Your task to perform on an android device: turn notification dots on Image 0: 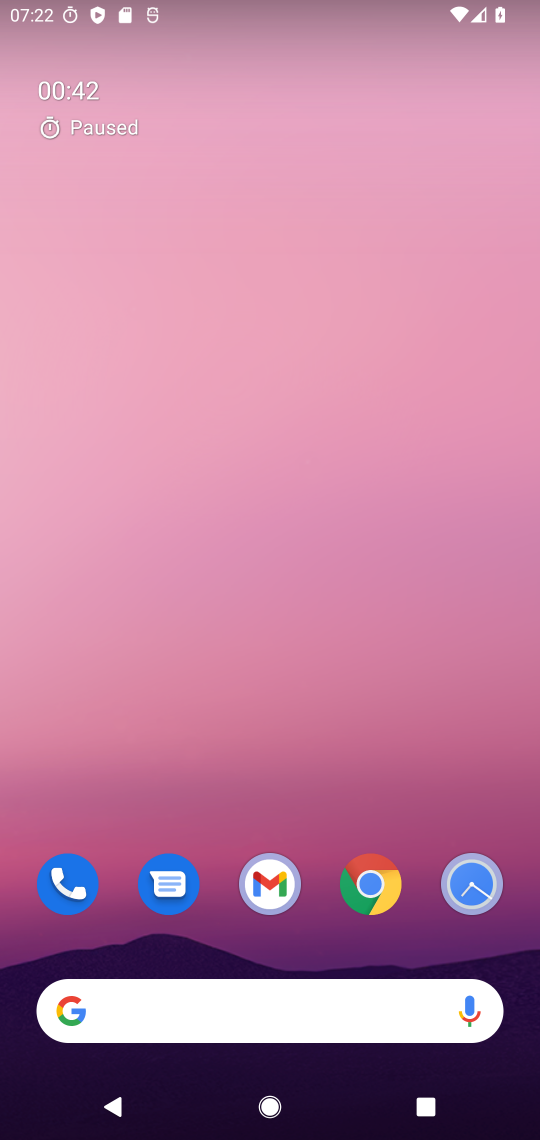
Step 0: press home button
Your task to perform on an android device: turn notification dots on Image 1: 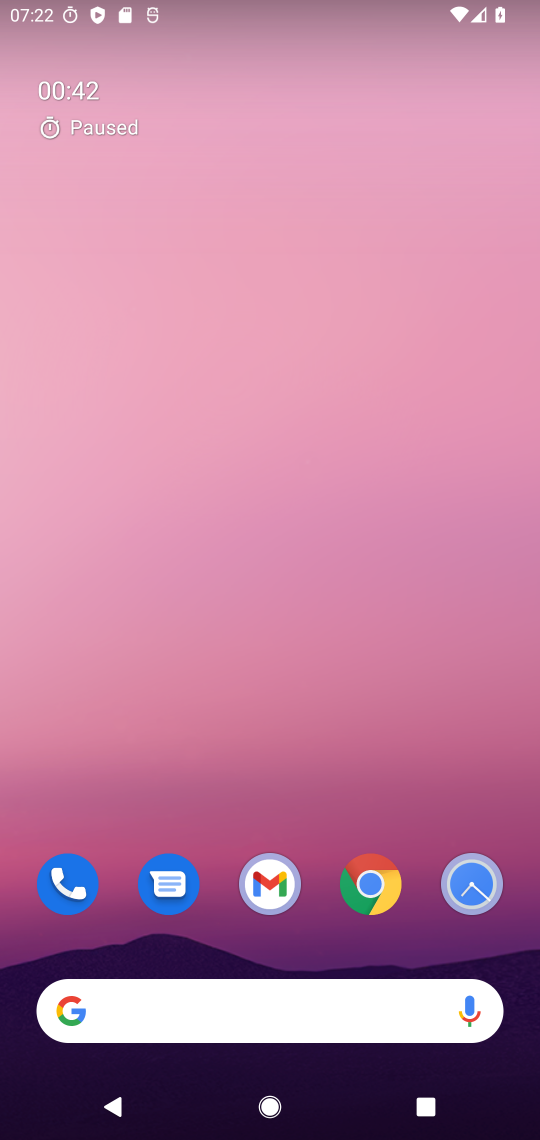
Step 1: drag from (356, 812) to (398, 164)
Your task to perform on an android device: turn notification dots on Image 2: 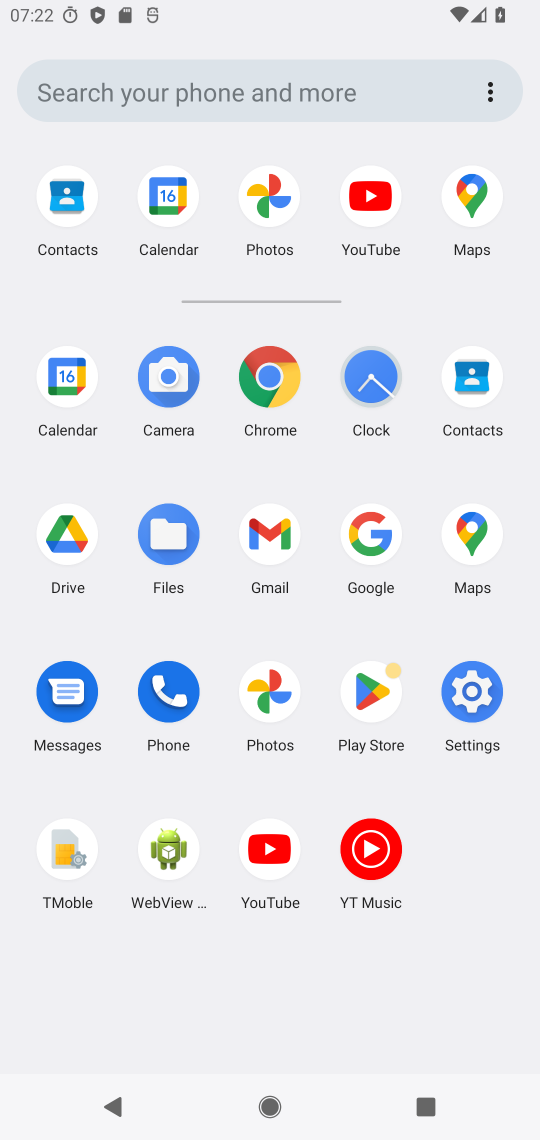
Step 2: click (476, 679)
Your task to perform on an android device: turn notification dots on Image 3: 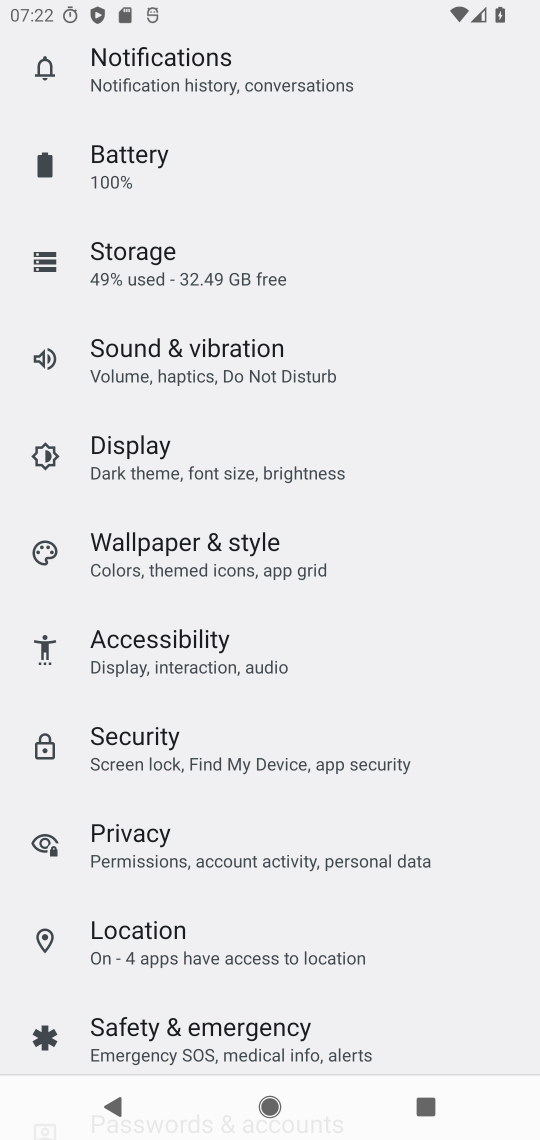
Step 3: click (163, 58)
Your task to perform on an android device: turn notification dots on Image 4: 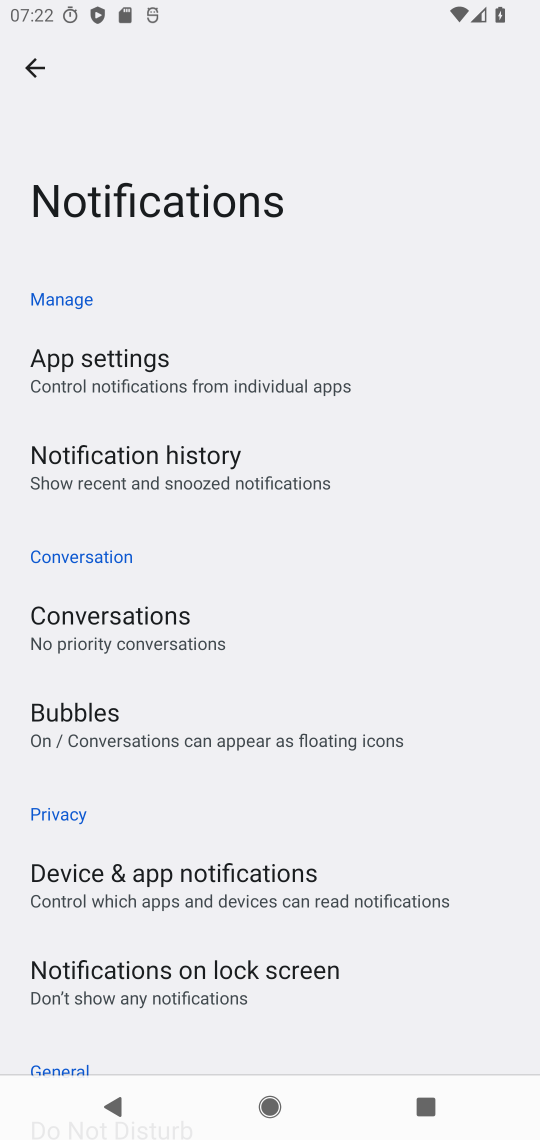
Step 4: click (232, 124)
Your task to perform on an android device: turn notification dots on Image 5: 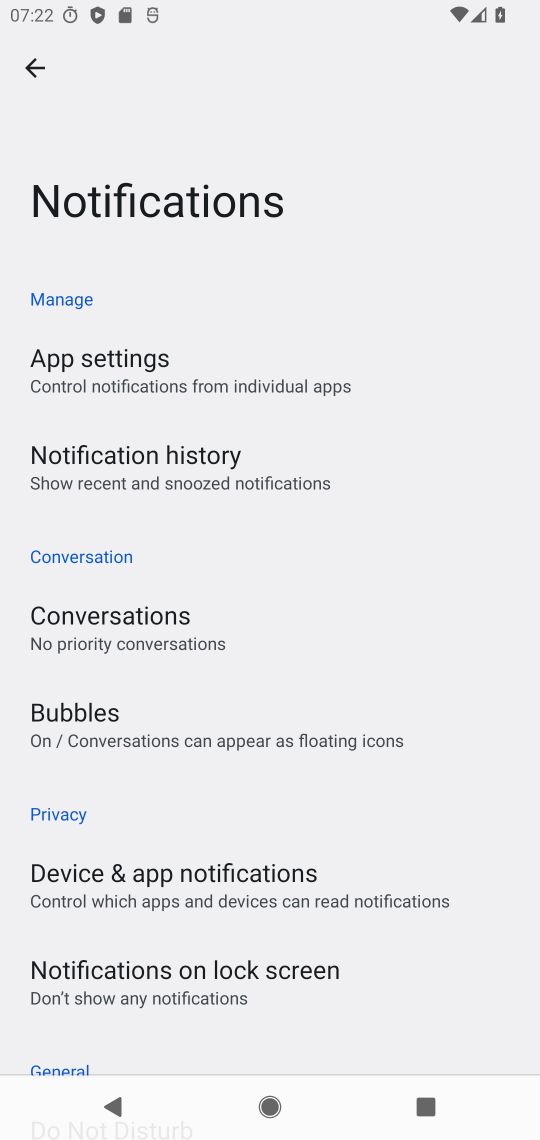
Step 5: drag from (190, 825) to (305, 150)
Your task to perform on an android device: turn notification dots on Image 6: 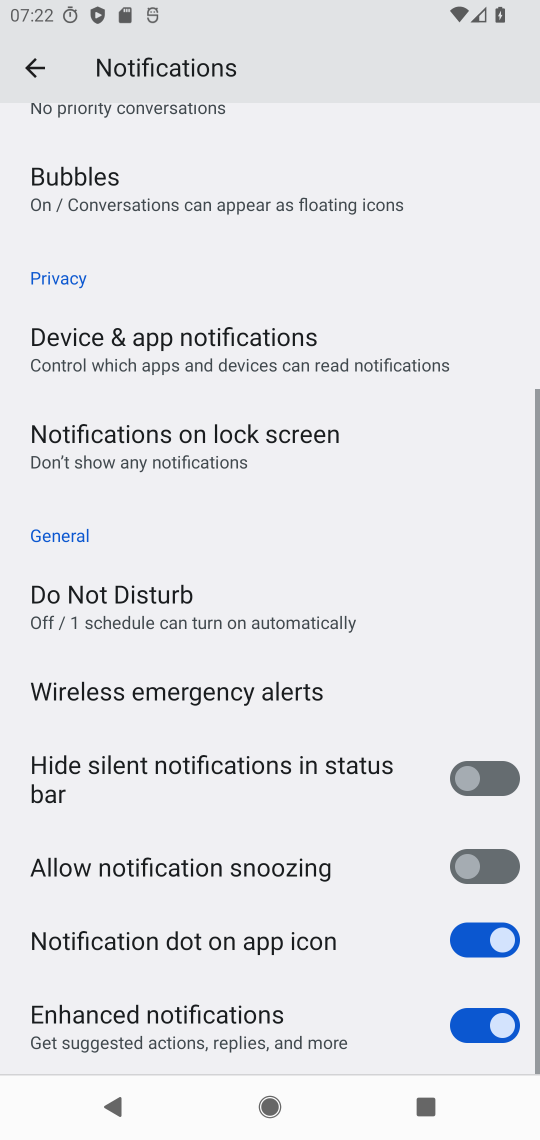
Step 6: click (311, 239)
Your task to perform on an android device: turn notification dots on Image 7: 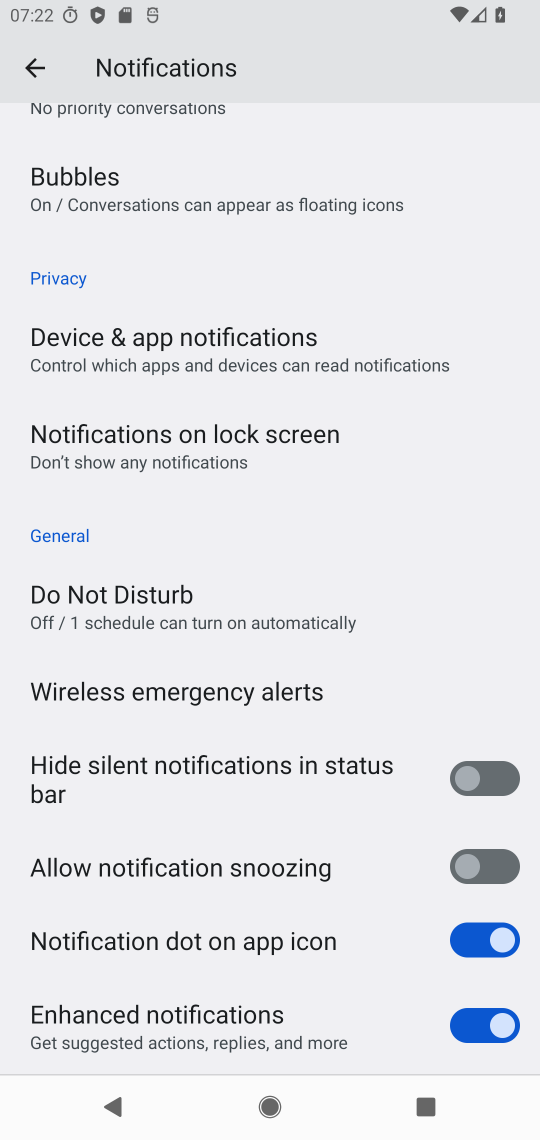
Step 7: task complete